Your task to perform on an android device: Search for seafood restaurants on Google Maps Image 0: 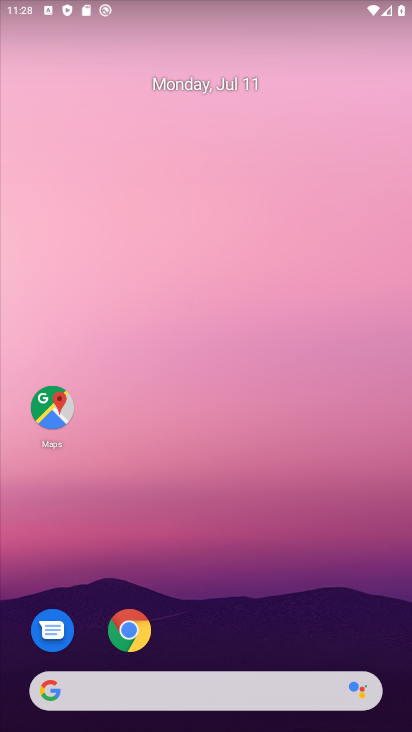
Step 0: click (54, 409)
Your task to perform on an android device: Search for seafood restaurants on Google Maps Image 1: 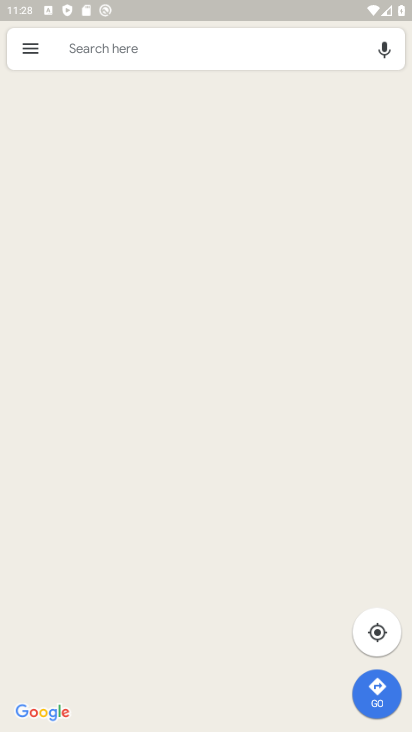
Step 1: click (102, 47)
Your task to perform on an android device: Search for seafood restaurants on Google Maps Image 2: 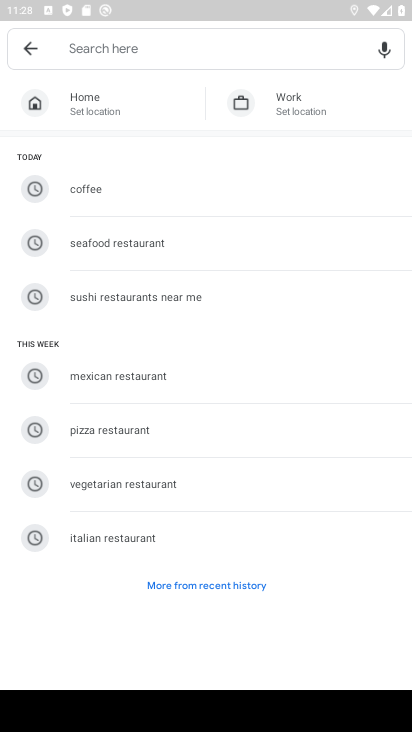
Step 2: type "seafood restaurants"
Your task to perform on an android device: Search for seafood restaurants on Google Maps Image 3: 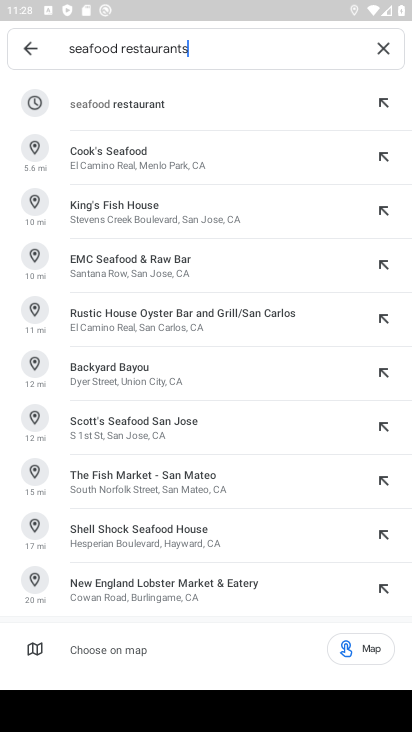
Step 3: click (129, 105)
Your task to perform on an android device: Search for seafood restaurants on Google Maps Image 4: 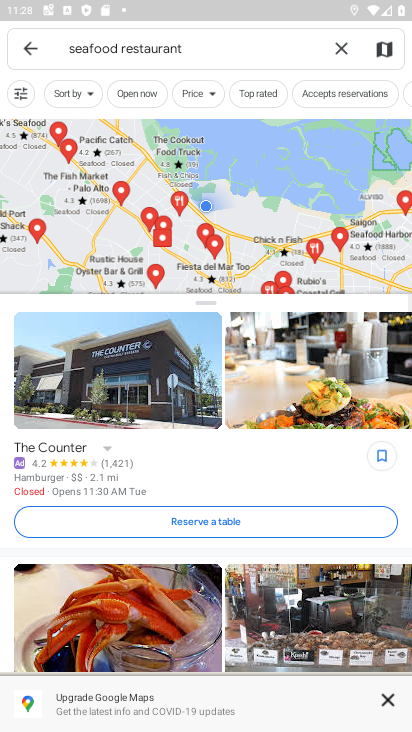
Step 4: task complete